Your task to perform on an android device: open a new tab in the chrome app Image 0: 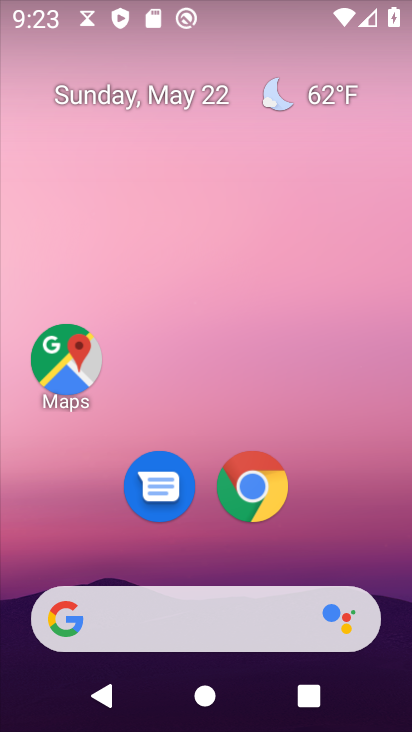
Step 0: press home button
Your task to perform on an android device: open a new tab in the chrome app Image 1: 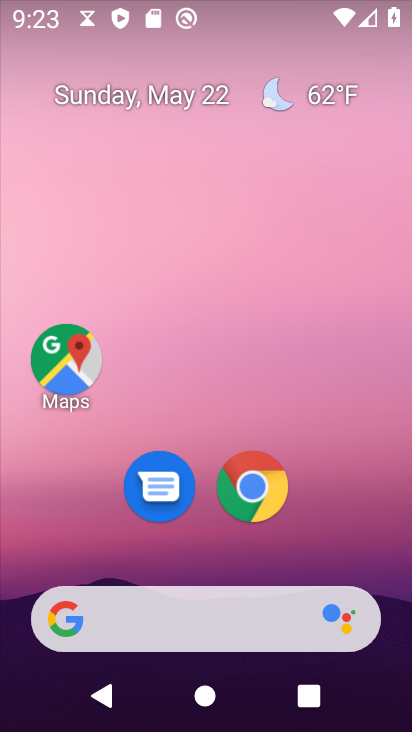
Step 1: click (255, 481)
Your task to perform on an android device: open a new tab in the chrome app Image 2: 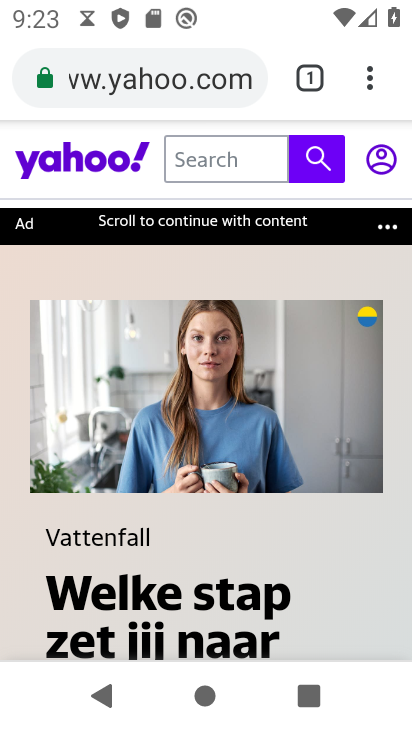
Step 2: click (310, 76)
Your task to perform on an android device: open a new tab in the chrome app Image 3: 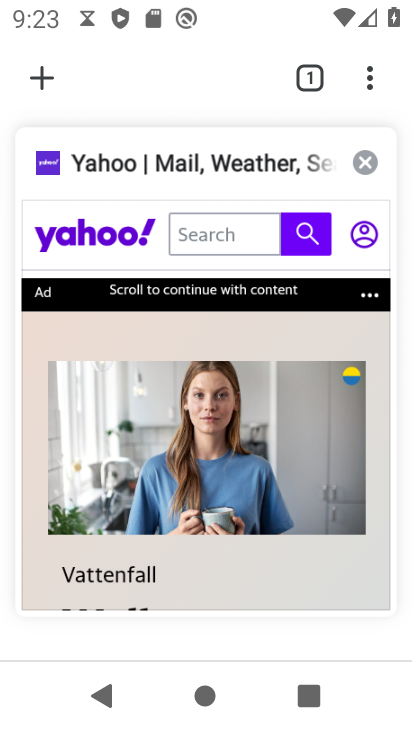
Step 3: click (42, 81)
Your task to perform on an android device: open a new tab in the chrome app Image 4: 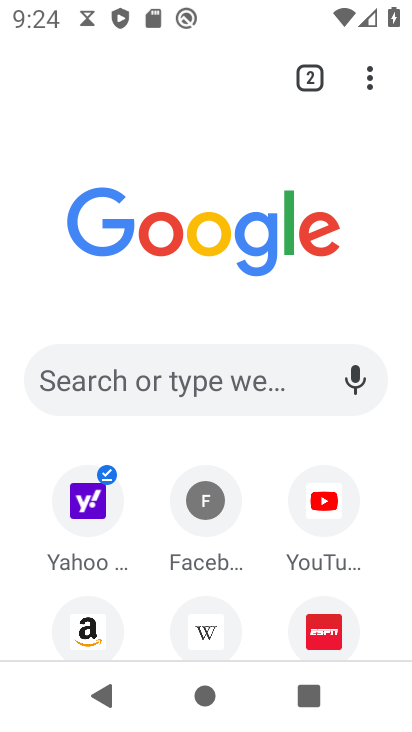
Step 4: click (307, 73)
Your task to perform on an android device: open a new tab in the chrome app Image 5: 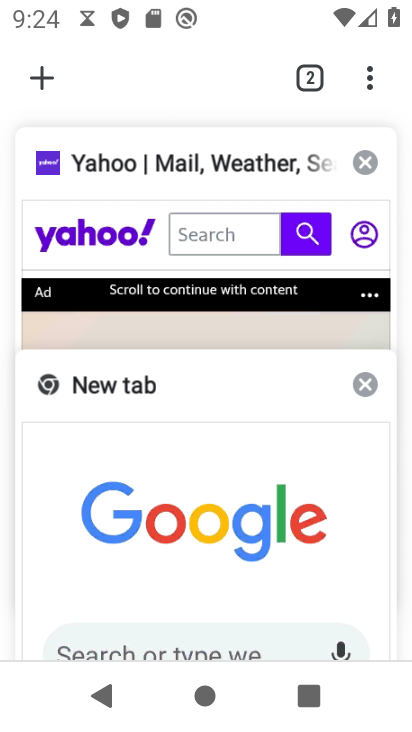
Step 5: click (41, 73)
Your task to perform on an android device: open a new tab in the chrome app Image 6: 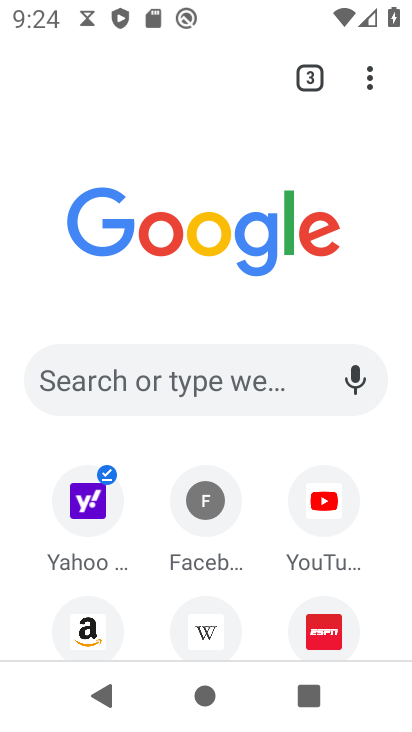
Step 6: task complete